Your task to perform on an android device: toggle show notifications on the lock screen Image 0: 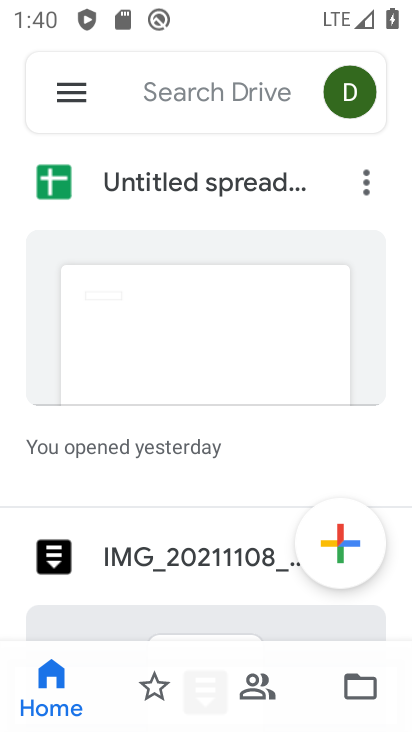
Step 0: press home button
Your task to perform on an android device: toggle show notifications on the lock screen Image 1: 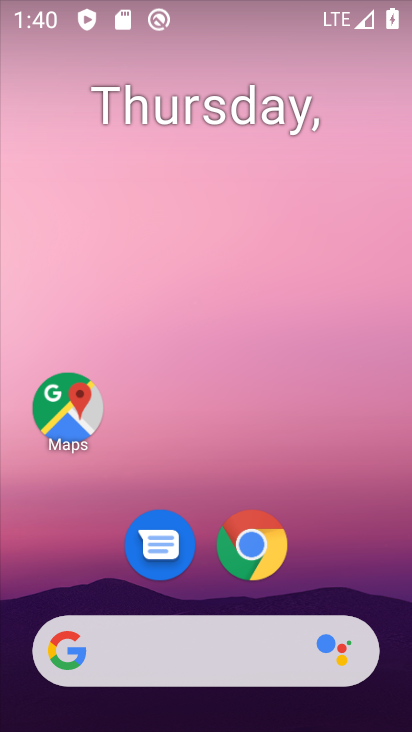
Step 1: drag from (211, 721) to (234, 120)
Your task to perform on an android device: toggle show notifications on the lock screen Image 2: 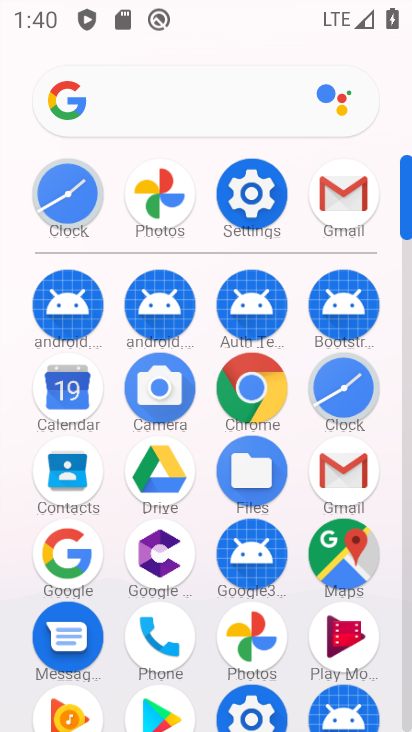
Step 2: click (253, 182)
Your task to perform on an android device: toggle show notifications on the lock screen Image 3: 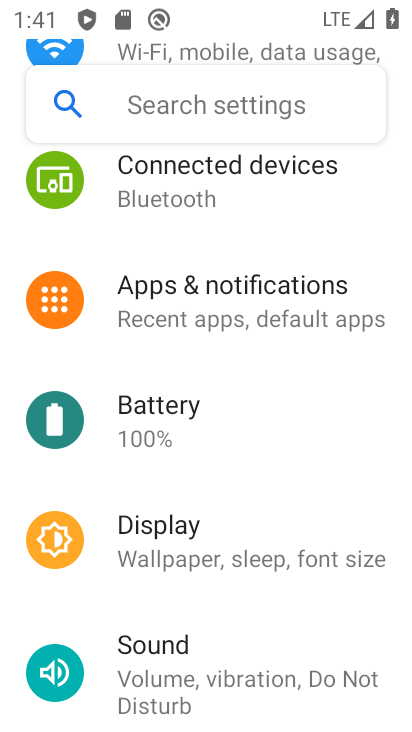
Step 3: click (291, 293)
Your task to perform on an android device: toggle show notifications on the lock screen Image 4: 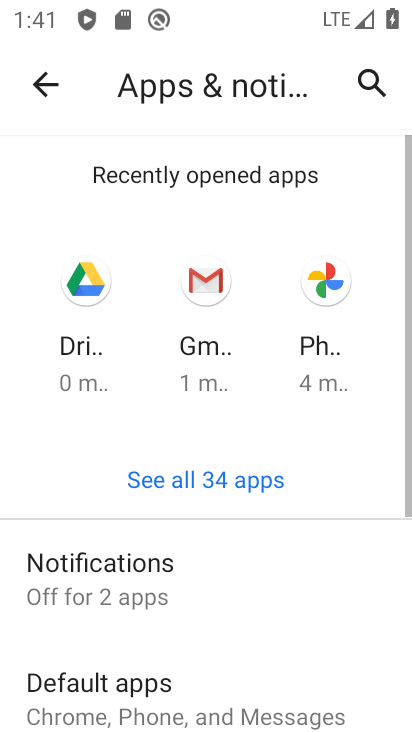
Step 4: click (161, 579)
Your task to perform on an android device: toggle show notifications on the lock screen Image 5: 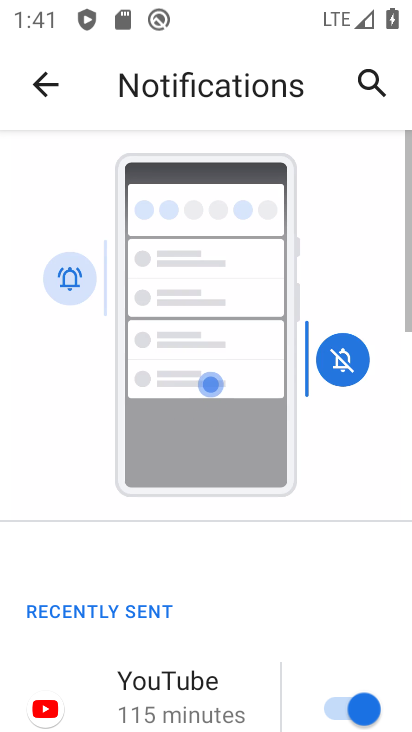
Step 5: drag from (235, 313) to (229, 102)
Your task to perform on an android device: toggle show notifications on the lock screen Image 6: 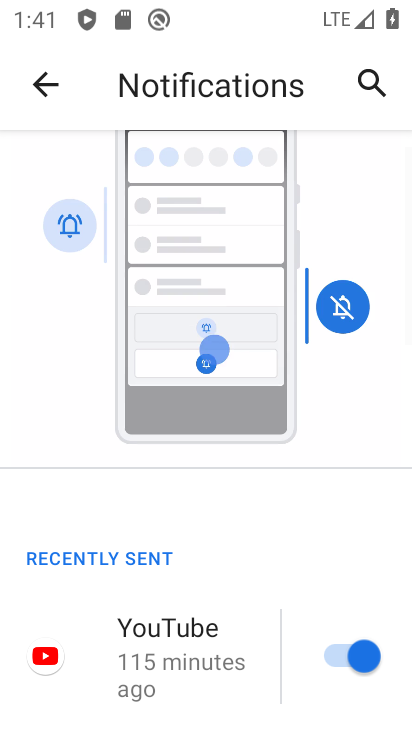
Step 6: drag from (159, 664) to (286, 24)
Your task to perform on an android device: toggle show notifications on the lock screen Image 7: 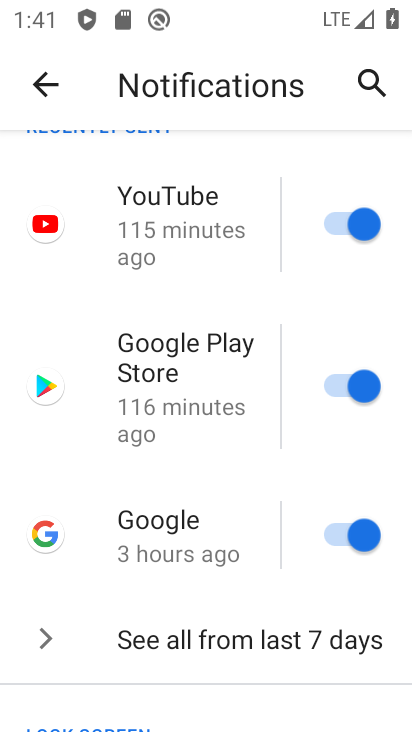
Step 7: drag from (147, 621) to (157, 156)
Your task to perform on an android device: toggle show notifications on the lock screen Image 8: 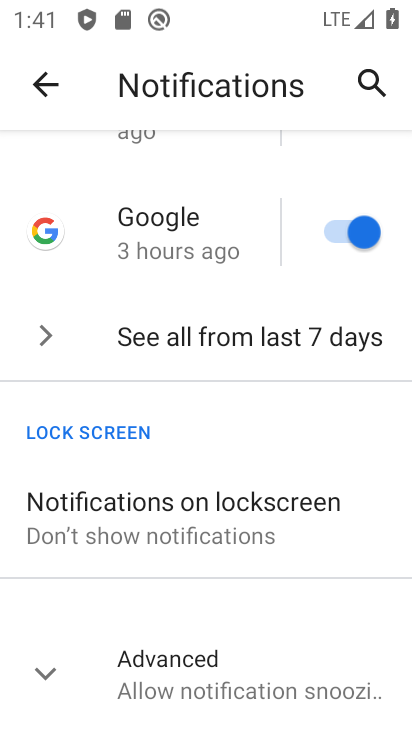
Step 8: click (197, 548)
Your task to perform on an android device: toggle show notifications on the lock screen Image 9: 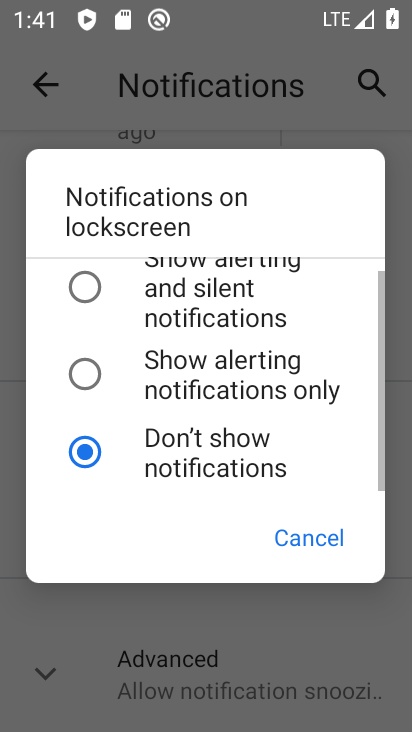
Step 9: click (193, 288)
Your task to perform on an android device: toggle show notifications on the lock screen Image 10: 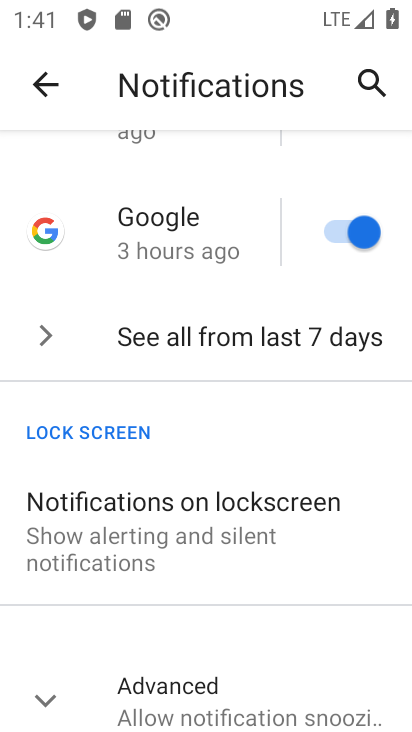
Step 10: task complete